Your task to perform on an android device: show emergency info Image 0: 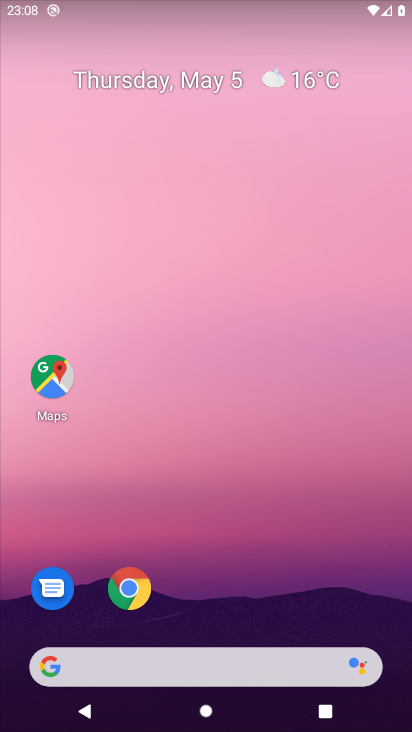
Step 0: drag from (233, 621) to (196, 296)
Your task to perform on an android device: show emergency info Image 1: 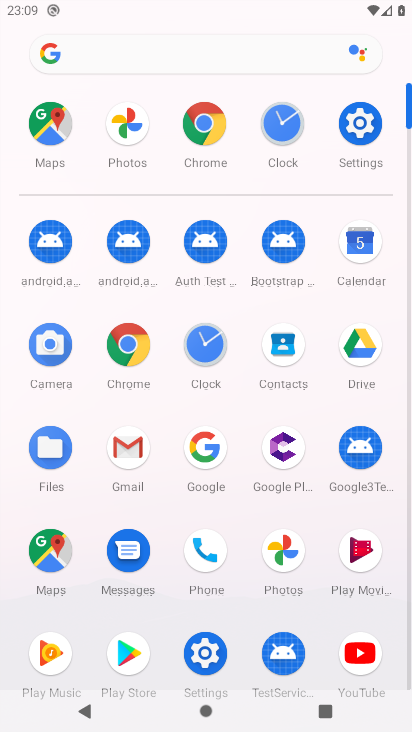
Step 1: click (213, 647)
Your task to perform on an android device: show emergency info Image 2: 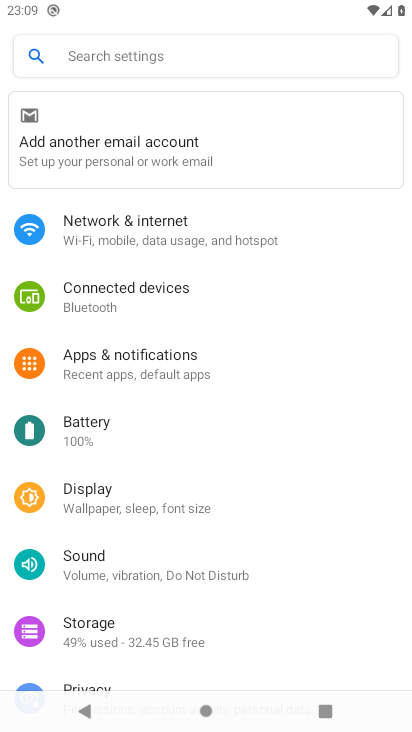
Step 2: drag from (218, 656) to (211, 247)
Your task to perform on an android device: show emergency info Image 3: 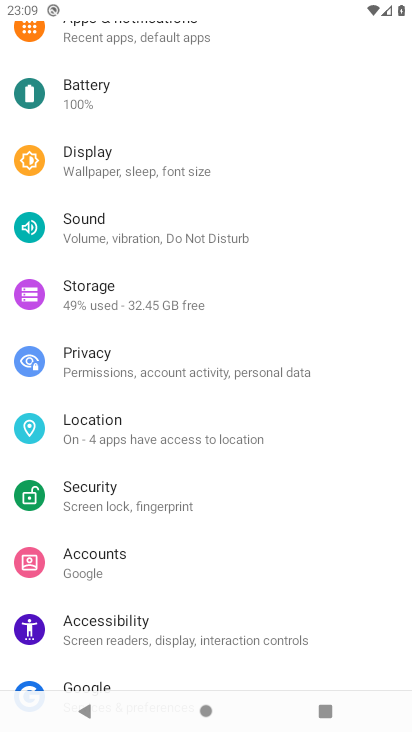
Step 3: drag from (361, 563) to (368, 257)
Your task to perform on an android device: show emergency info Image 4: 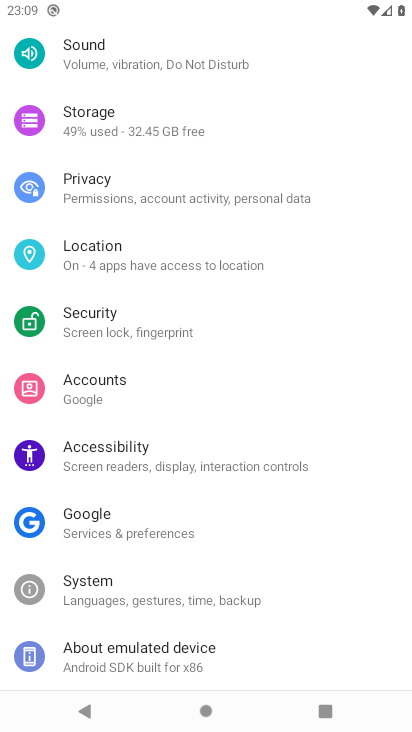
Step 4: drag from (311, 649) to (313, 274)
Your task to perform on an android device: show emergency info Image 5: 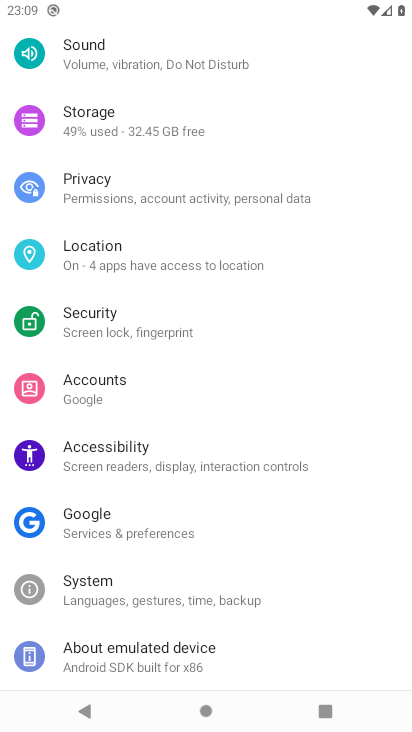
Step 5: click (281, 640)
Your task to perform on an android device: show emergency info Image 6: 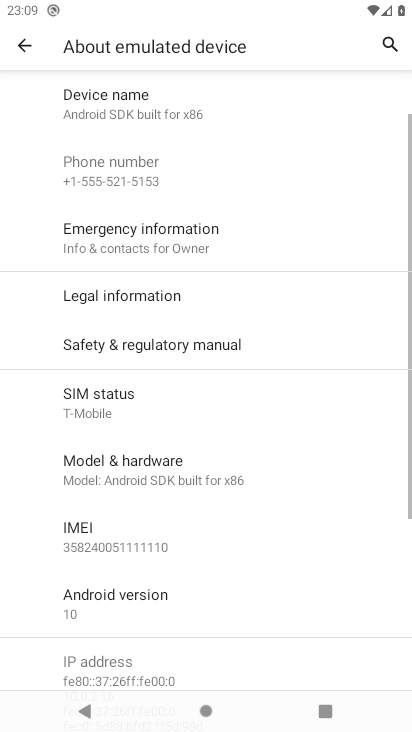
Step 6: click (287, 233)
Your task to perform on an android device: show emergency info Image 7: 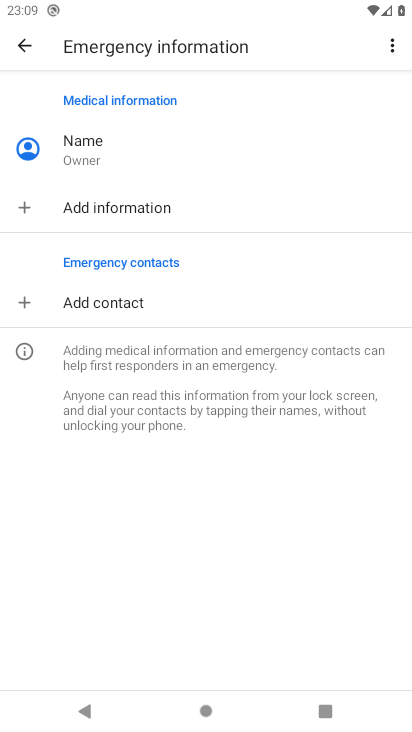
Step 7: task complete